Your task to perform on an android device: Check the weather Image 0: 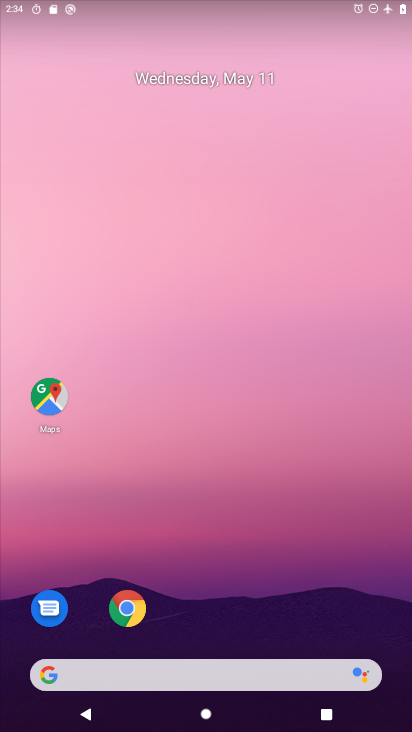
Step 0: drag from (178, 627) to (202, 145)
Your task to perform on an android device: Check the weather Image 1: 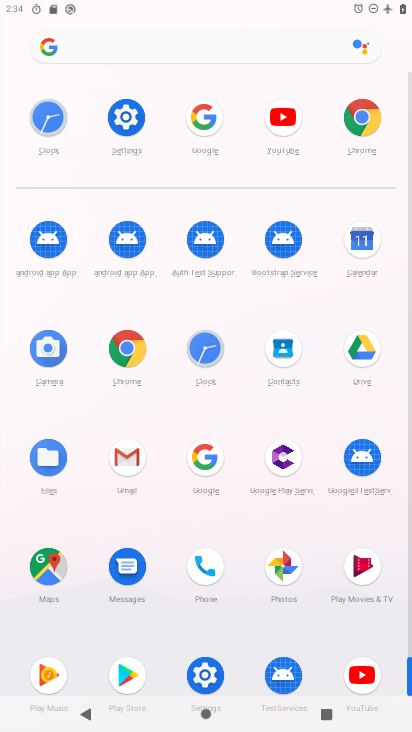
Step 1: click (196, 479)
Your task to perform on an android device: Check the weather Image 2: 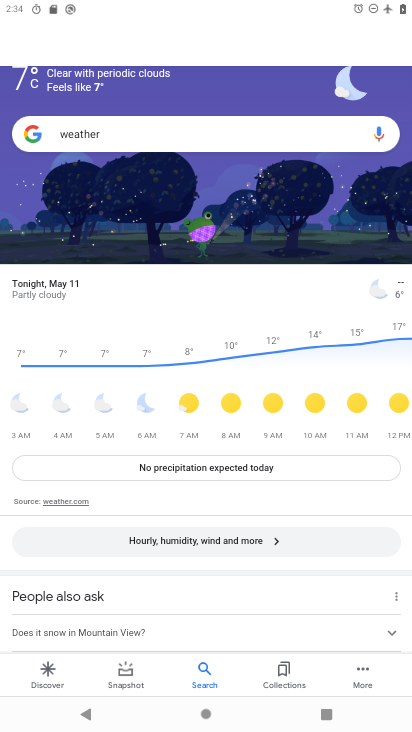
Step 2: task complete